Your task to perform on an android device: turn on the 24-hour format for clock Image 0: 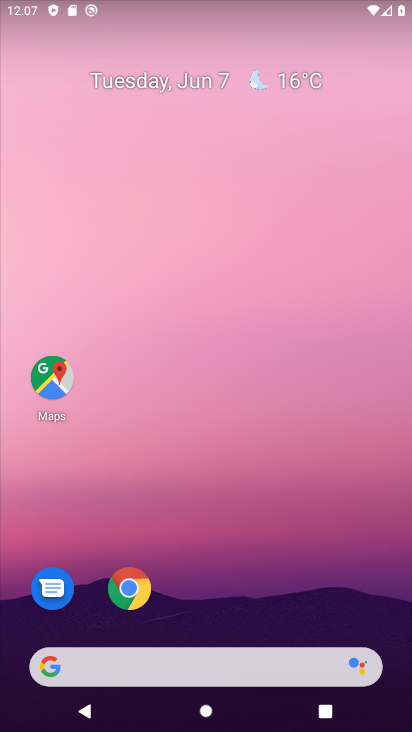
Step 0: drag from (262, 635) to (234, 183)
Your task to perform on an android device: turn on the 24-hour format for clock Image 1: 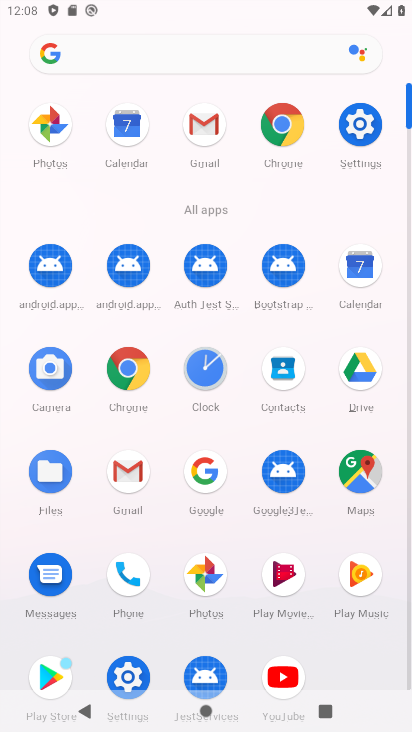
Step 1: click (217, 373)
Your task to perform on an android device: turn on the 24-hour format for clock Image 2: 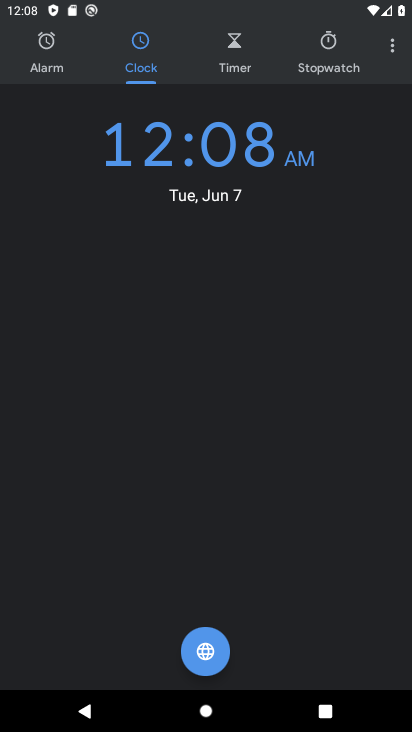
Step 2: task complete